Your task to perform on an android device: Go to Yahoo.com Image 0: 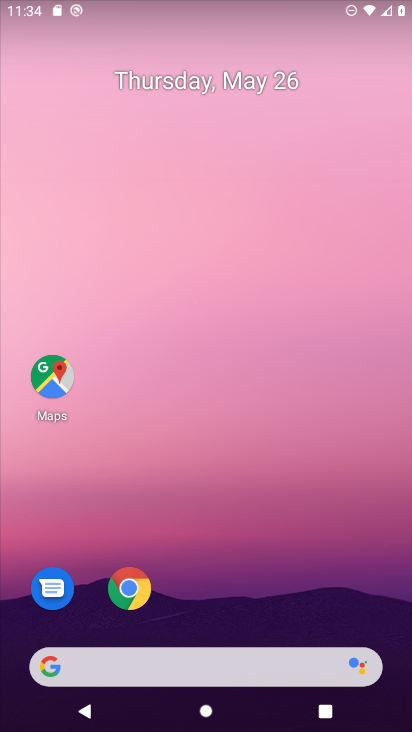
Step 0: click (132, 588)
Your task to perform on an android device: Go to Yahoo.com Image 1: 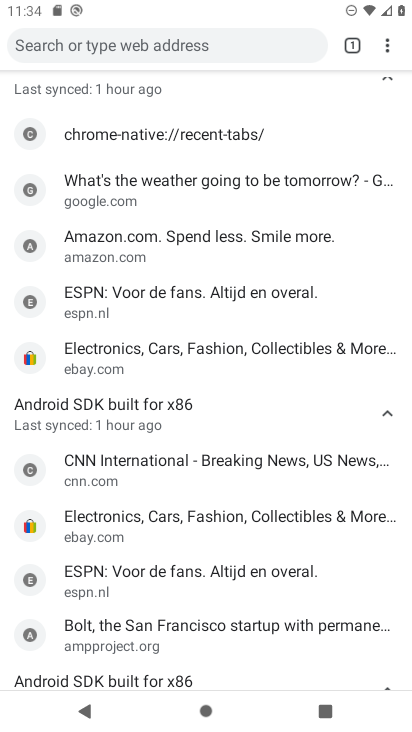
Step 1: click (158, 40)
Your task to perform on an android device: Go to Yahoo.com Image 2: 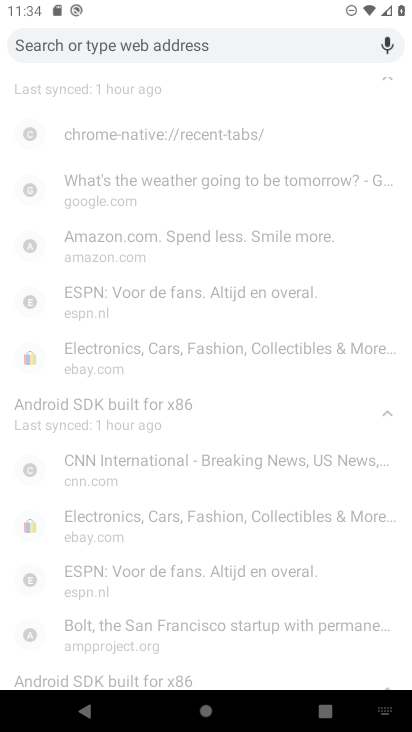
Step 2: type "yahoo.com"
Your task to perform on an android device: Go to Yahoo.com Image 3: 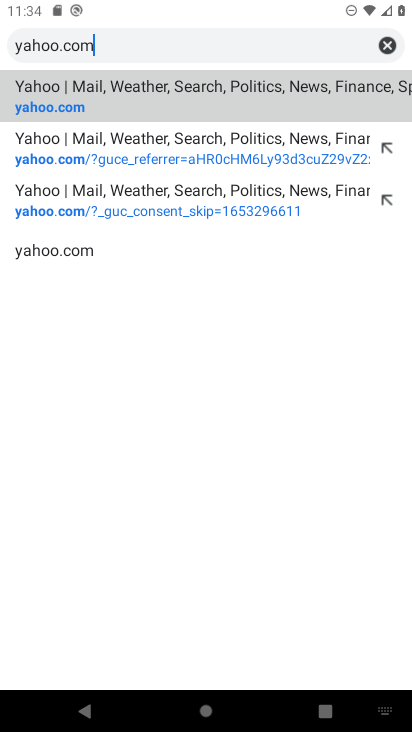
Step 3: click (91, 98)
Your task to perform on an android device: Go to Yahoo.com Image 4: 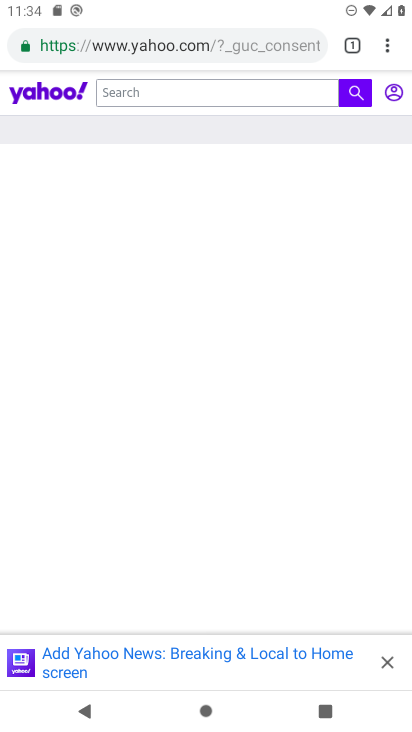
Step 4: task complete